Your task to perform on an android device: Search for pizza restaurants on Maps Image 0: 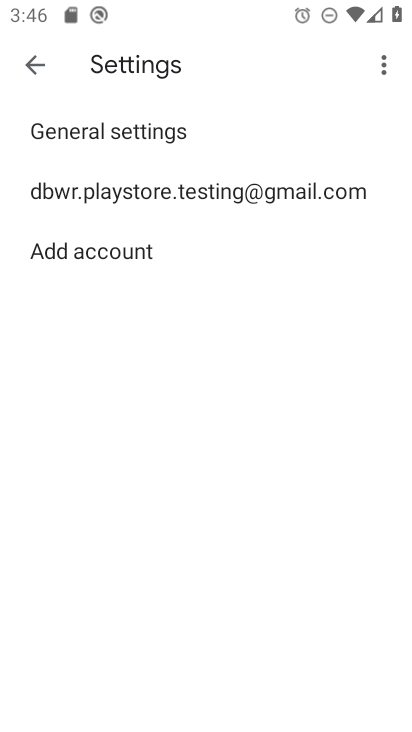
Step 0: press home button
Your task to perform on an android device: Search for pizza restaurants on Maps Image 1: 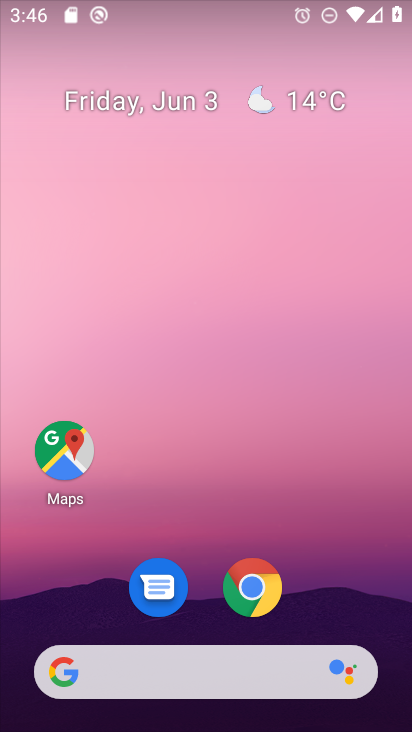
Step 1: drag from (210, 723) to (213, 130)
Your task to perform on an android device: Search for pizza restaurants on Maps Image 2: 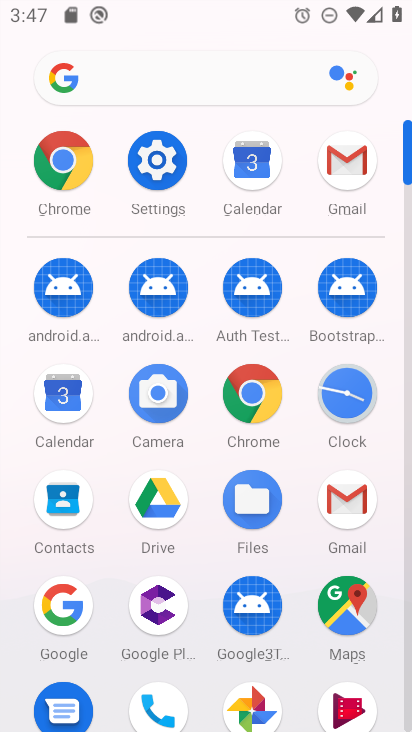
Step 2: click (343, 602)
Your task to perform on an android device: Search for pizza restaurants on Maps Image 3: 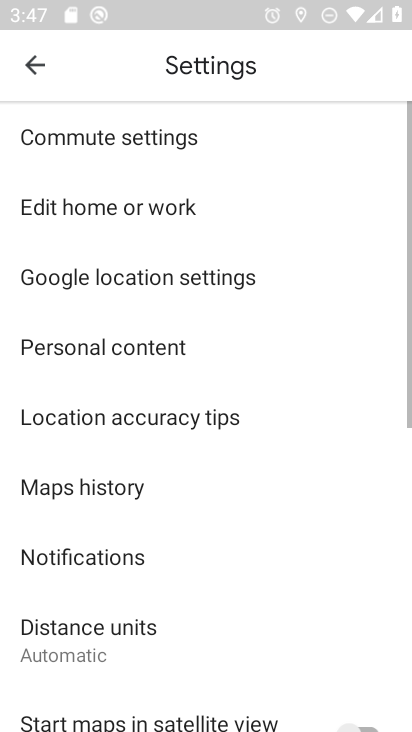
Step 3: click (32, 61)
Your task to perform on an android device: Search for pizza restaurants on Maps Image 4: 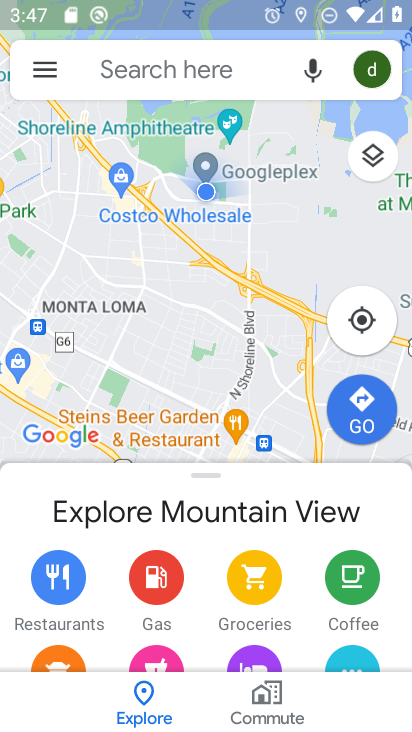
Step 4: click (137, 81)
Your task to perform on an android device: Search for pizza restaurants on Maps Image 5: 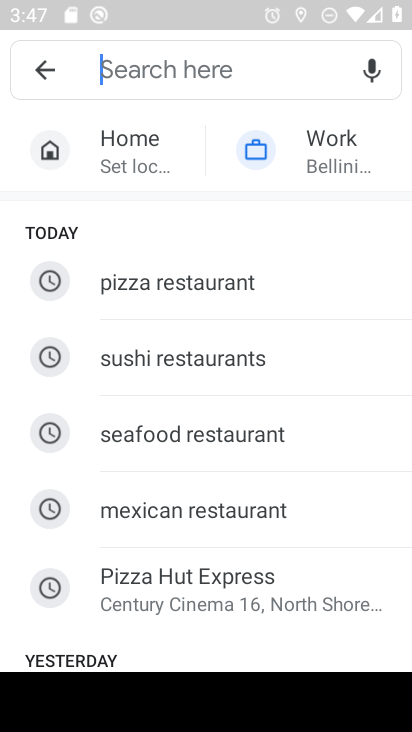
Step 5: click (192, 282)
Your task to perform on an android device: Search for pizza restaurants on Maps Image 6: 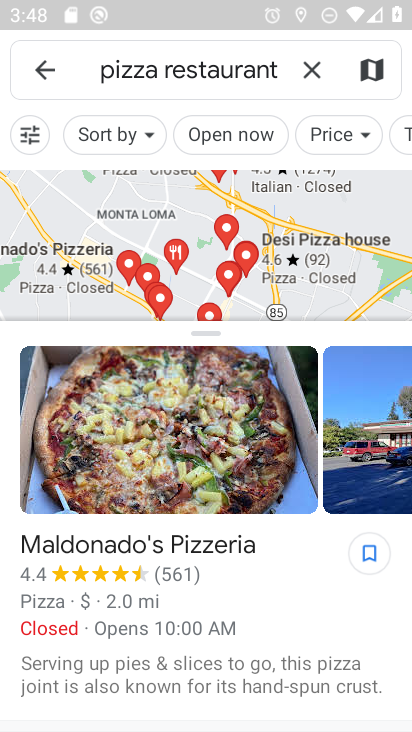
Step 6: task complete